Your task to perform on an android device: Go to ESPN.com Image 0: 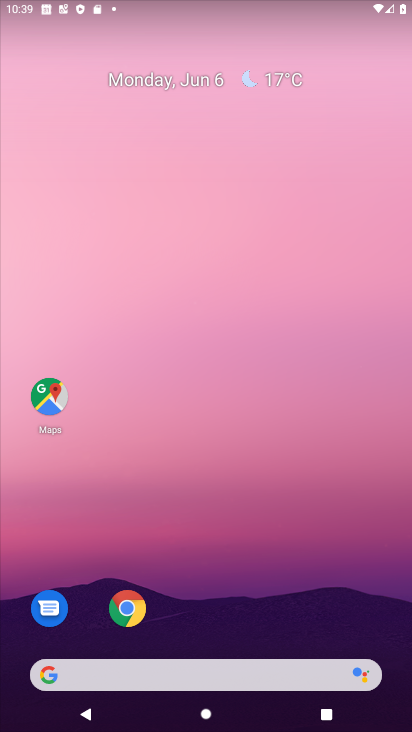
Step 0: drag from (217, 636) to (227, 228)
Your task to perform on an android device: Go to ESPN.com Image 1: 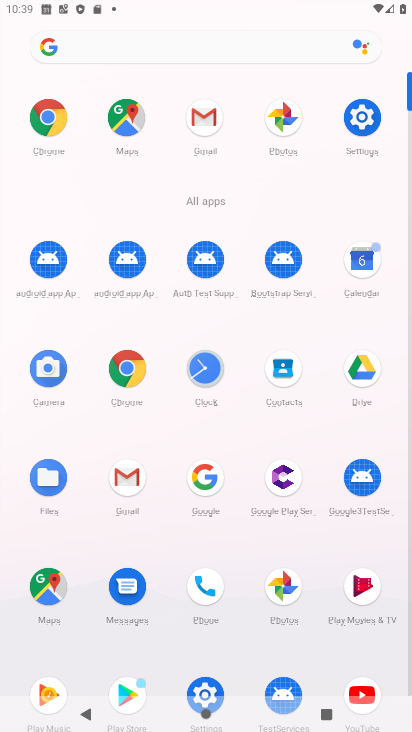
Step 1: click (42, 130)
Your task to perform on an android device: Go to ESPN.com Image 2: 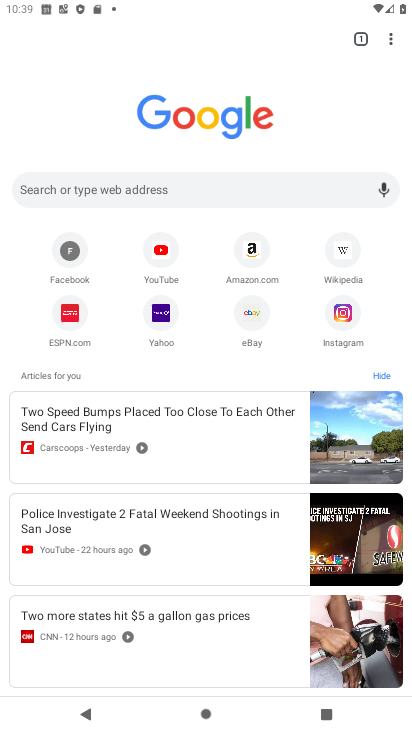
Step 2: click (66, 318)
Your task to perform on an android device: Go to ESPN.com Image 3: 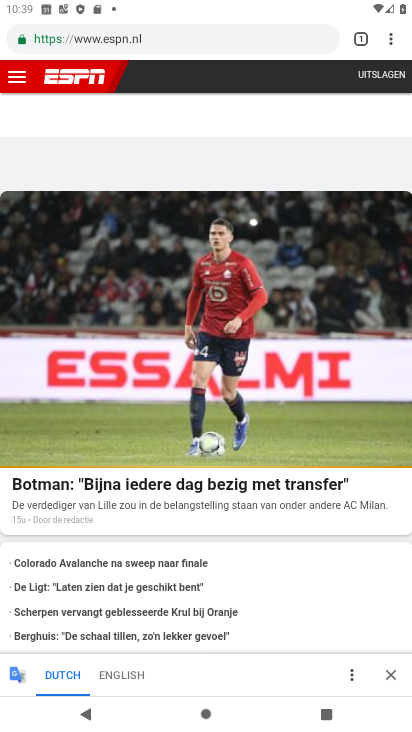
Step 3: task complete